Your task to perform on an android device: Search for sushi restaurants on Maps Image 0: 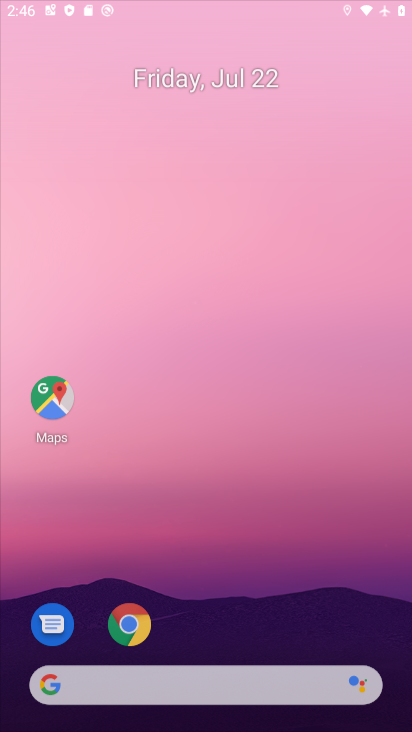
Step 0: drag from (182, 286) to (185, 167)
Your task to perform on an android device: Search for sushi restaurants on Maps Image 1: 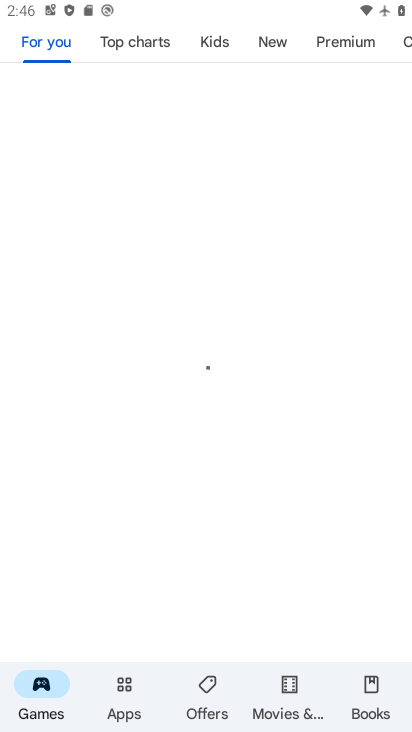
Step 1: press home button
Your task to perform on an android device: Search for sushi restaurants on Maps Image 2: 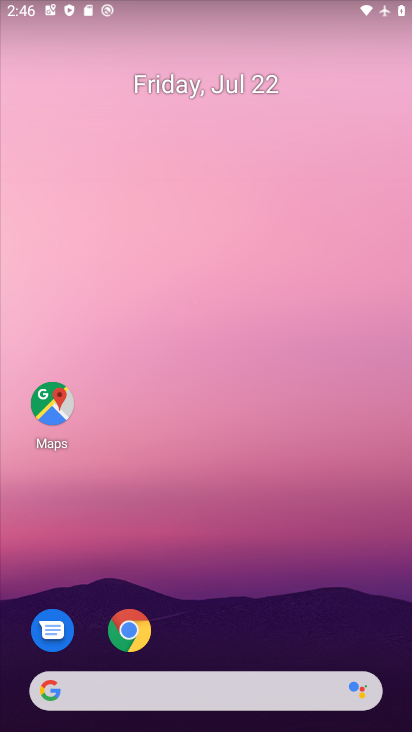
Step 2: drag from (216, 661) to (208, 37)
Your task to perform on an android device: Search for sushi restaurants on Maps Image 3: 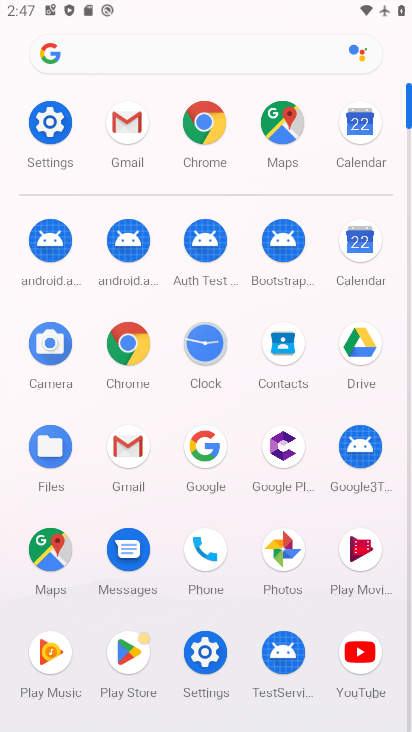
Step 3: click (55, 556)
Your task to perform on an android device: Search for sushi restaurants on Maps Image 4: 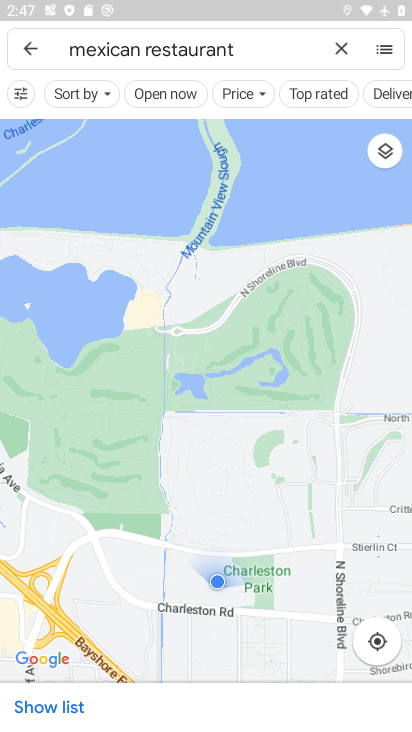
Step 4: click (336, 41)
Your task to perform on an android device: Search for sushi restaurants on Maps Image 5: 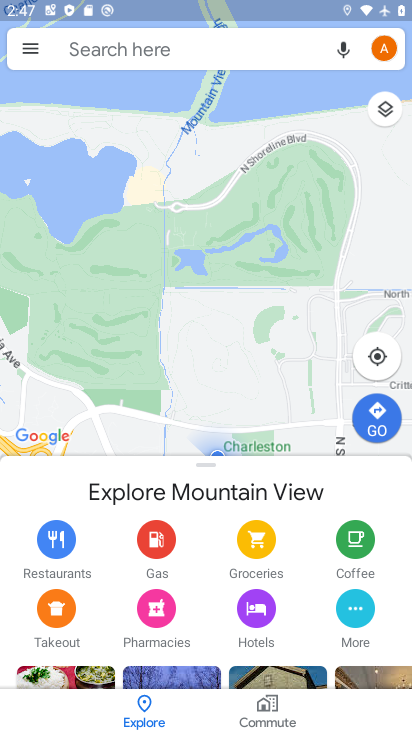
Step 5: click (157, 53)
Your task to perform on an android device: Search for sushi restaurants on Maps Image 6: 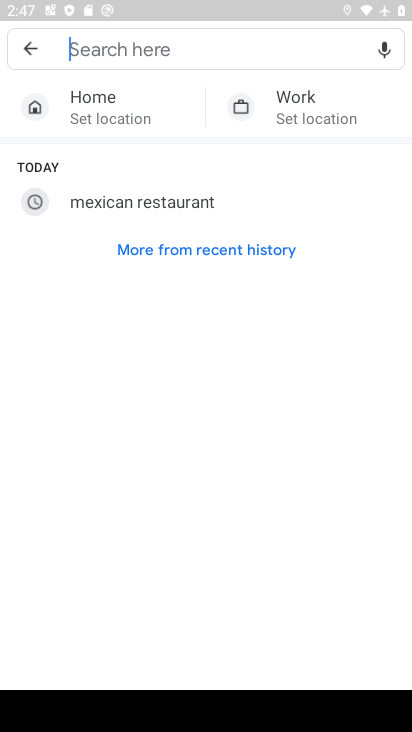
Step 6: type "sushi restaurants"
Your task to perform on an android device: Search for sushi restaurants on Maps Image 7: 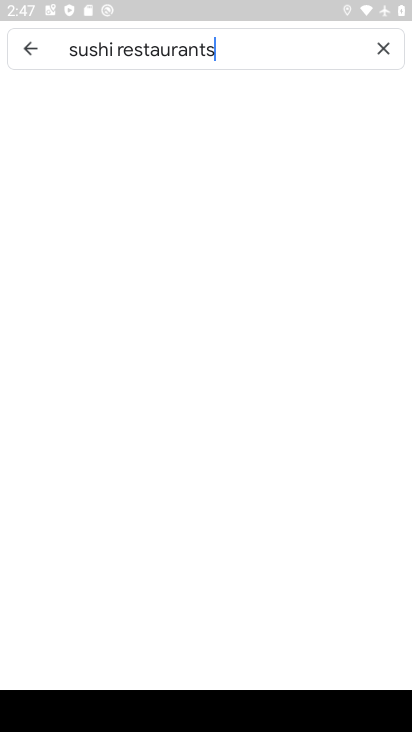
Step 7: type ""
Your task to perform on an android device: Search for sushi restaurants on Maps Image 8: 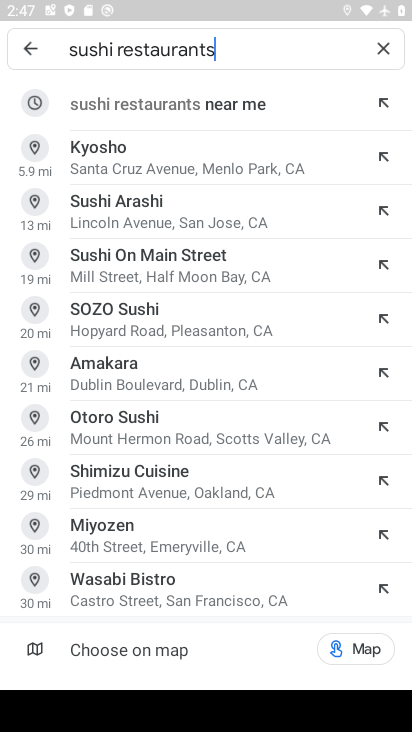
Step 8: click (110, 108)
Your task to perform on an android device: Search for sushi restaurants on Maps Image 9: 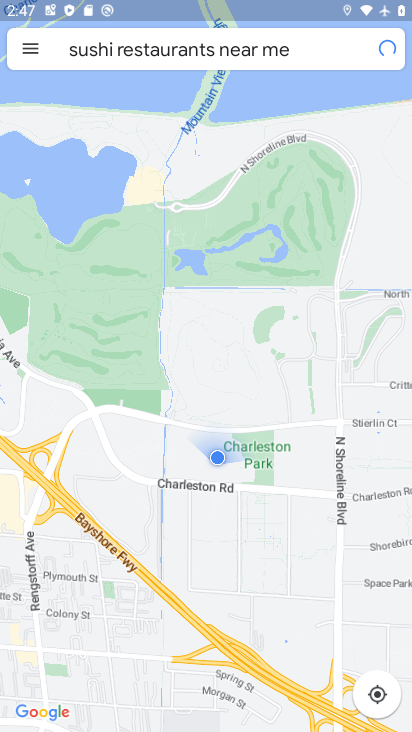
Step 9: task complete